Your task to perform on an android device: Open Google Chrome Image 0: 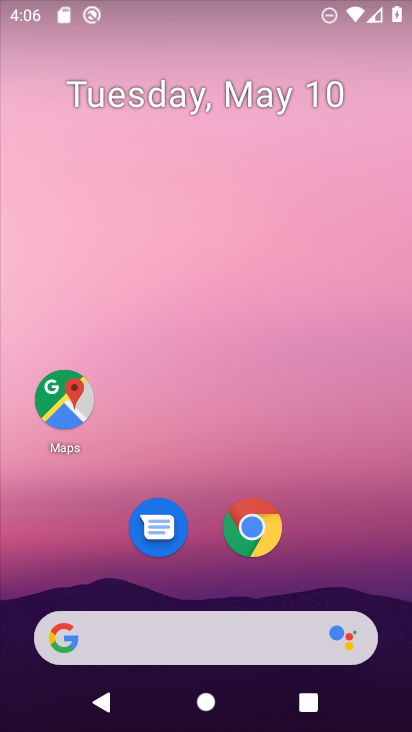
Step 0: click (261, 524)
Your task to perform on an android device: Open Google Chrome Image 1: 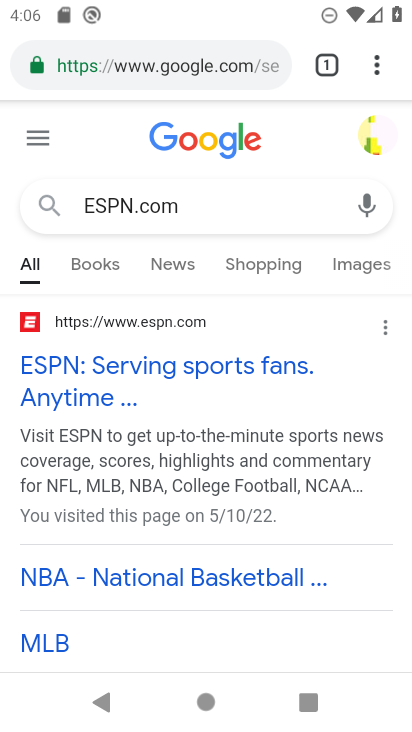
Step 1: click (375, 57)
Your task to perform on an android device: Open Google Chrome Image 2: 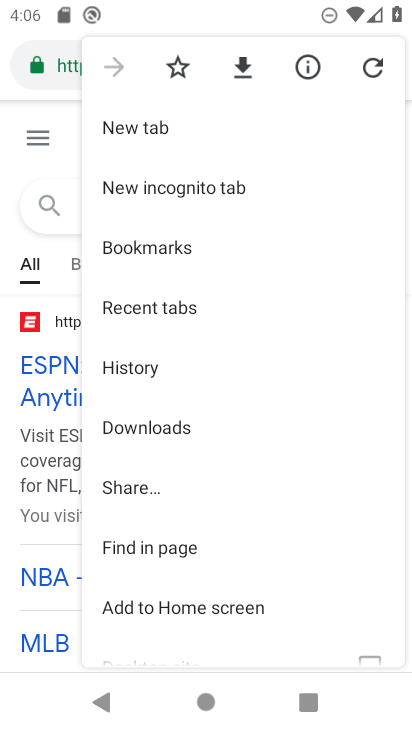
Step 2: drag from (301, 578) to (287, 436)
Your task to perform on an android device: Open Google Chrome Image 3: 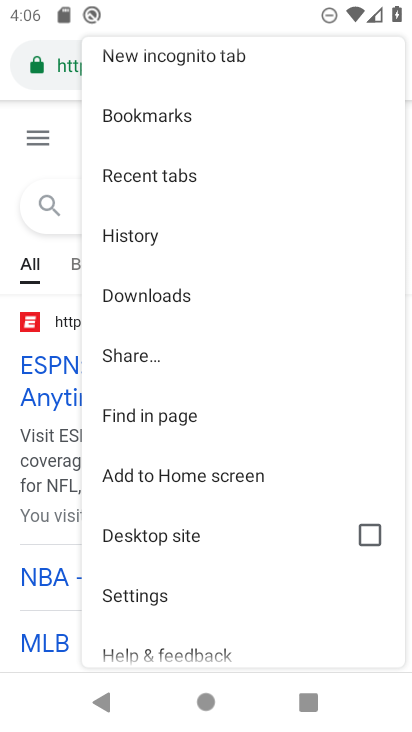
Step 3: click (112, 593)
Your task to perform on an android device: Open Google Chrome Image 4: 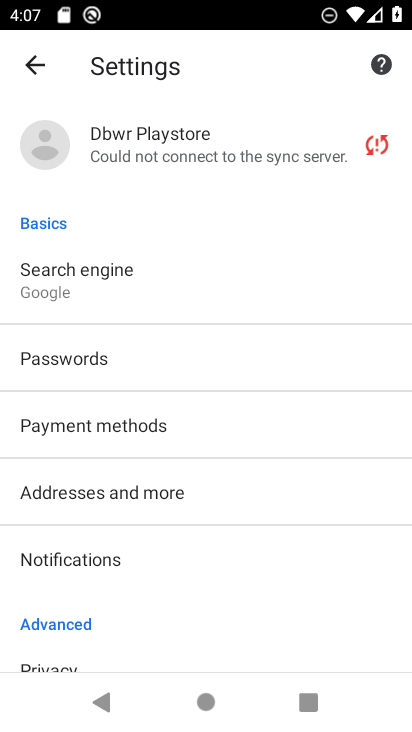
Step 4: task complete